Your task to perform on an android device: turn on improve location accuracy Image 0: 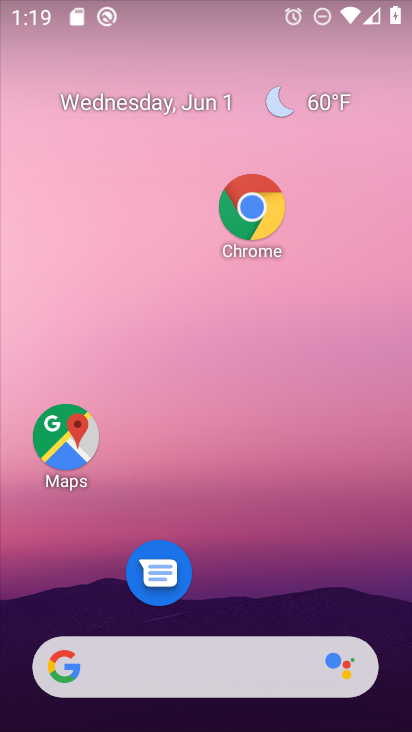
Step 0: drag from (216, 603) to (220, 144)
Your task to perform on an android device: turn on improve location accuracy Image 1: 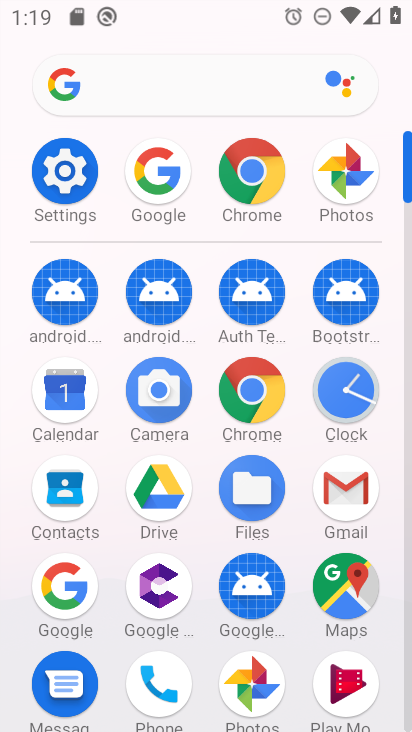
Step 1: click (61, 176)
Your task to perform on an android device: turn on improve location accuracy Image 2: 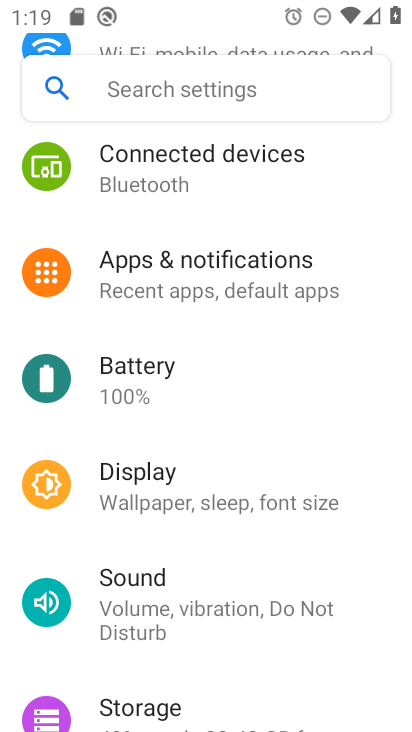
Step 2: drag from (205, 670) to (206, 270)
Your task to perform on an android device: turn on improve location accuracy Image 3: 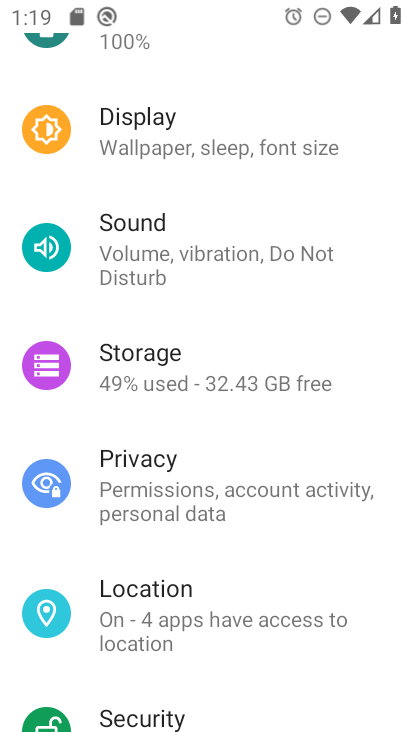
Step 3: click (210, 596)
Your task to perform on an android device: turn on improve location accuracy Image 4: 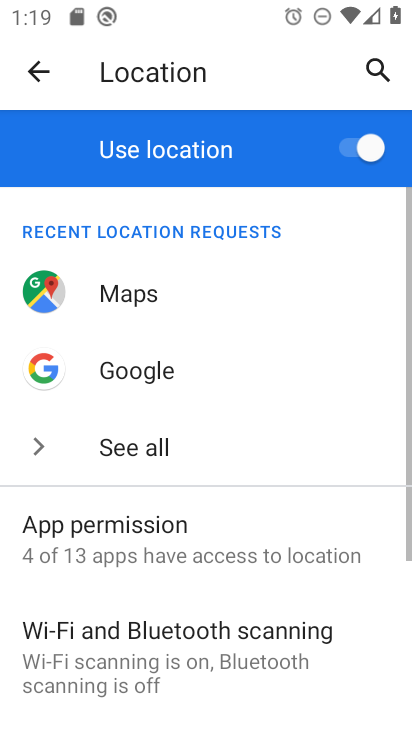
Step 4: drag from (221, 658) to (234, 326)
Your task to perform on an android device: turn on improve location accuracy Image 5: 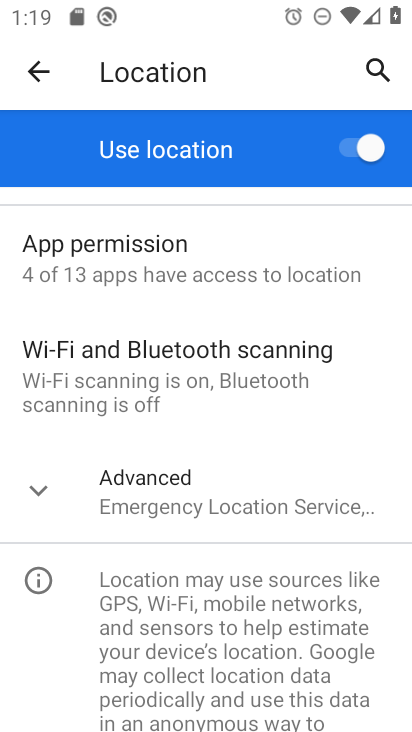
Step 5: click (180, 496)
Your task to perform on an android device: turn on improve location accuracy Image 6: 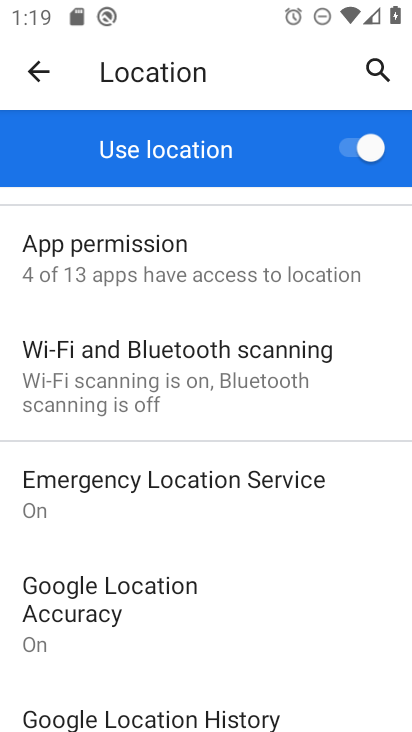
Step 6: drag from (195, 643) to (202, 370)
Your task to perform on an android device: turn on improve location accuracy Image 7: 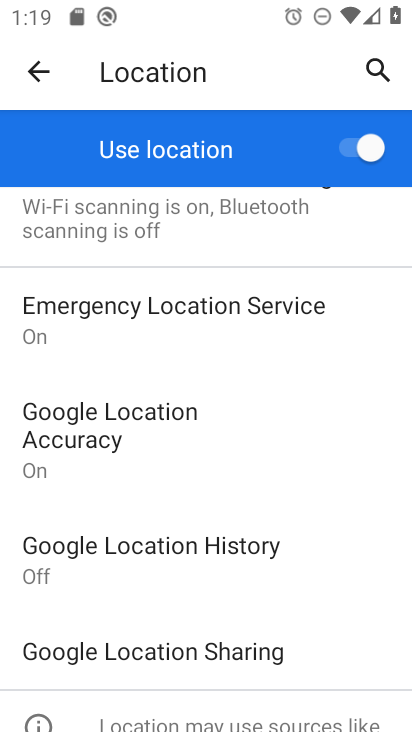
Step 7: drag from (225, 658) to (228, 377)
Your task to perform on an android device: turn on improve location accuracy Image 8: 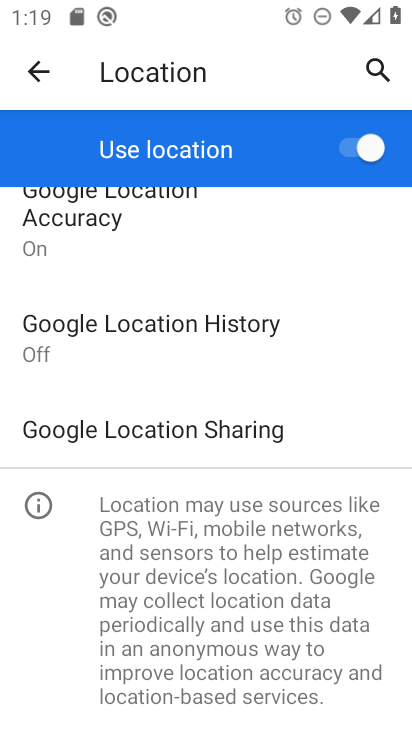
Step 8: drag from (193, 267) to (193, 584)
Your task to perform on an android device: turn on improve location accuracy Image 9: 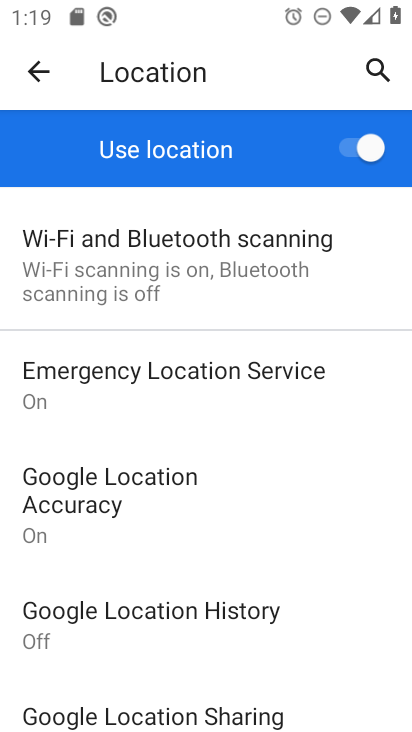
Step 9: click (133, 492)
Your task to perform on an android device: turn on improve location accuracy Image 10: 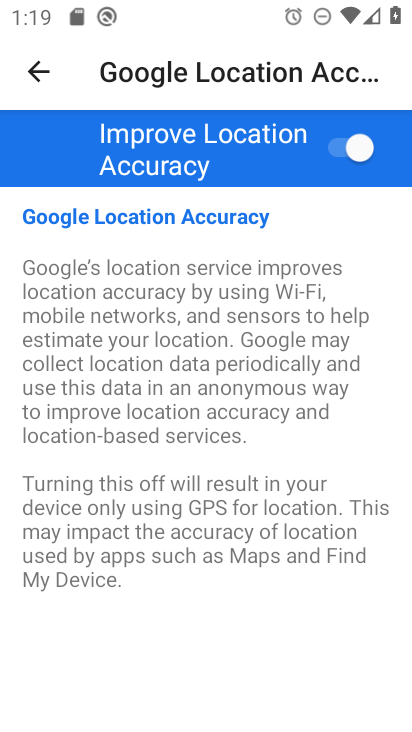
Step 10: task complete